Your task to perform on an android device: Go to internet settings Image 0: 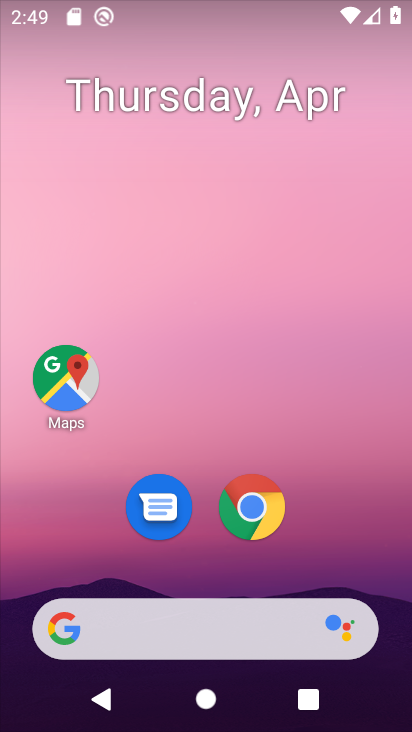
Step 0: drag from (190, 538) to (154, 43)
Your task to perform on an android device: Go to internet settings Image 1: 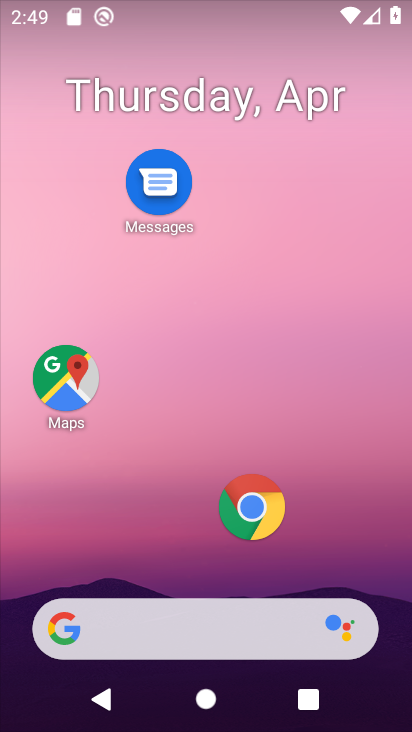
Step 1: drag from (114, 427) to (140, 190)
Your task to perform on an android device: Go to internet settings Image 2: 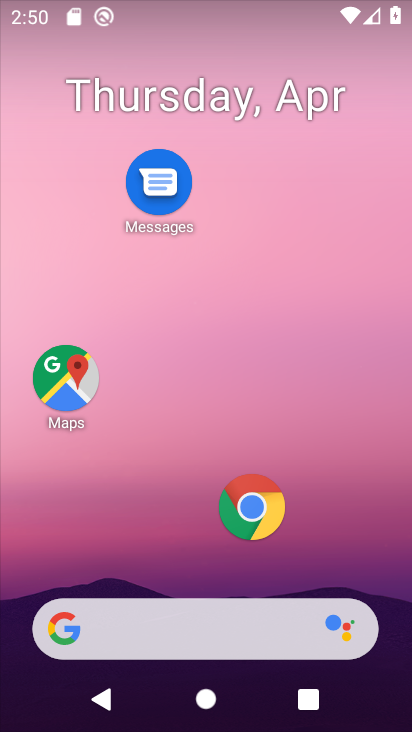
Step 2: drag from (192, 563) to (320, 2)
Your task to perform on an android device: Go to internet settings Image 3: 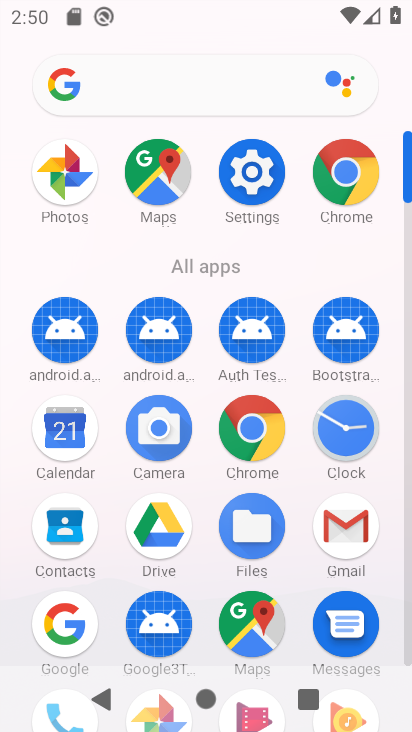
Step 3: click (247, 201)
Your task to perform on an android device: Go to internet settings Image 4: 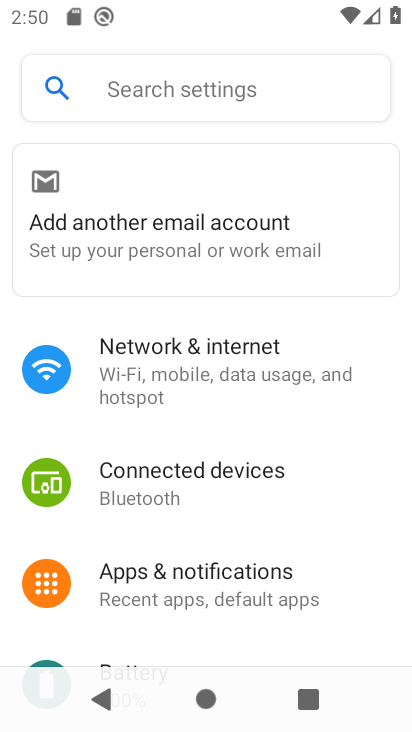
Step 4: click (195, 367)
Your task to perform on an android device: Go to internet settings Image 5: 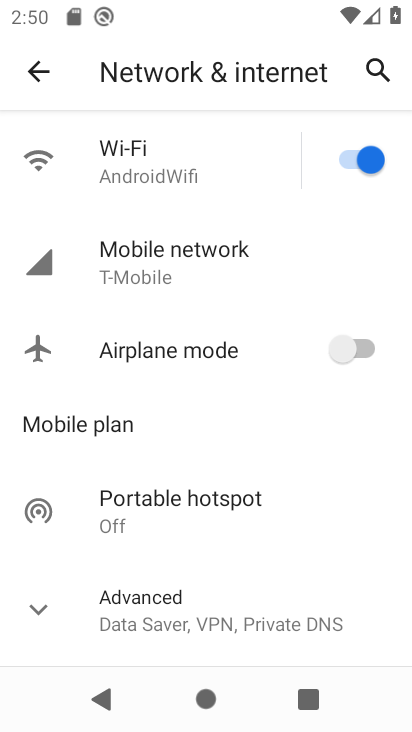
Step 5: click (200, 253)
Your task to perform on an android device: Go to internet settings Image 6: 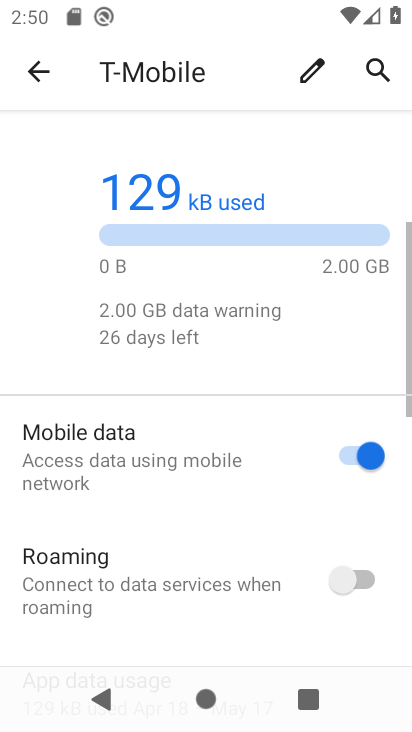
Step 6: task complete